Your task to perform on an android device: toggle pop-ups in chrome Image 0: 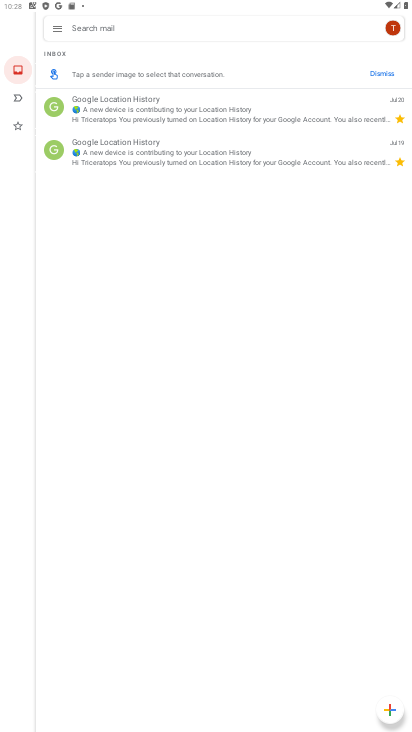
Step 0: press home button
Your task to perform on an android device: toggle pop-ups in chrome Image 1: 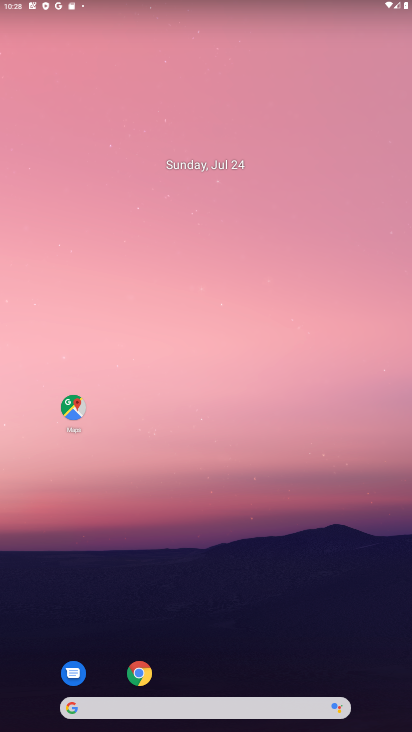
Step 1: click (142, 677)
Your task to perform on an android device: toggle pop-ups in chrome Image 2: 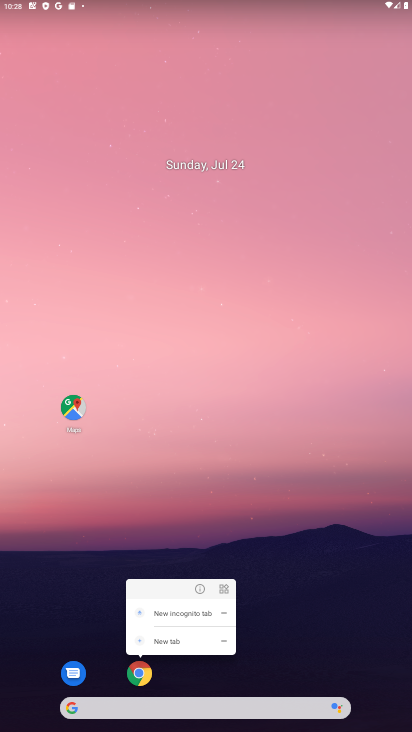
Step 2: click (145, 672)
Your task to perform on an android device: toggle pop-ups in chrome Image 3: 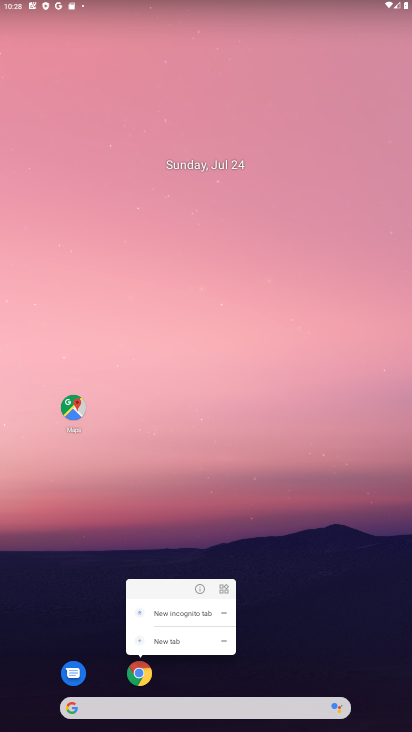
Step 3: click (152, 668)
Your task to perform on an android device: toggle pop-ups in chrome Image 4: 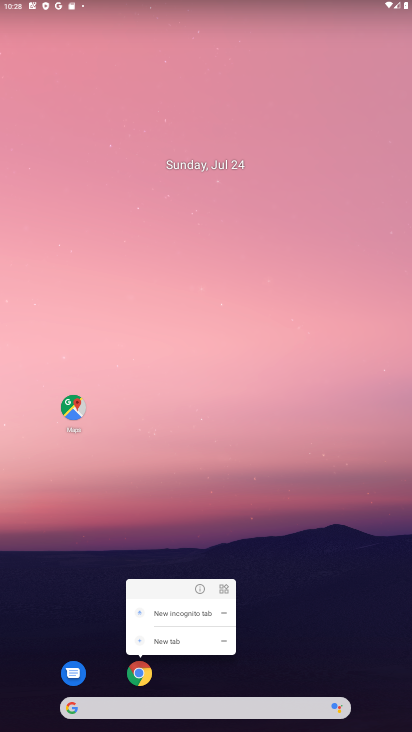
Step 4: click (149, 680)
Your task to perform on an android device: toggle pop-ups in chrome Image 5: 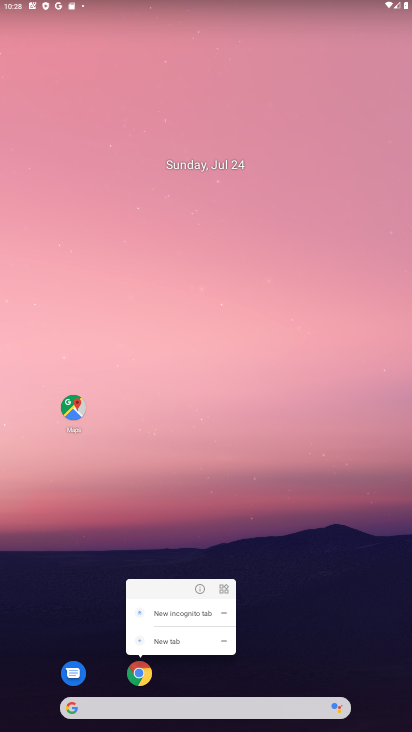
Step 5: click (143, 684)
Your task to perform on an android device: toggle pop-ups in chrome Image 6: 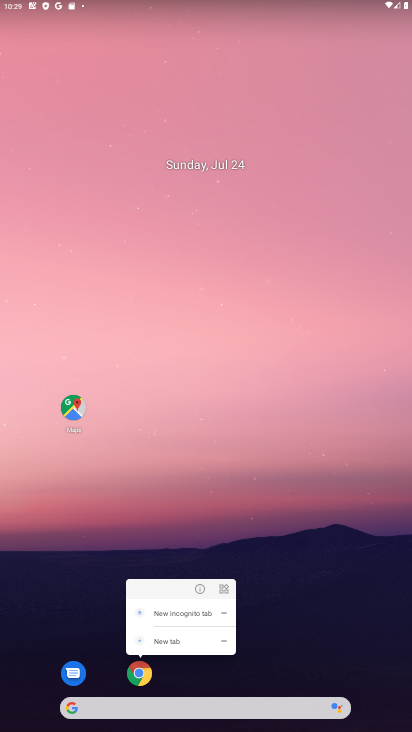
Step 6: click (142, 682)
Your task to perform on an android device: toggle pop-ups in chrome Image 7: 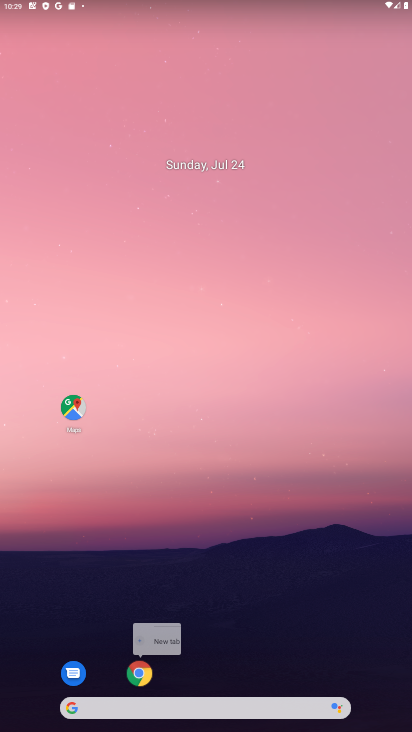
Step 7: click (142, 682)
Your task to perform on an android device: toggle pop-ups in chrome Image 8: 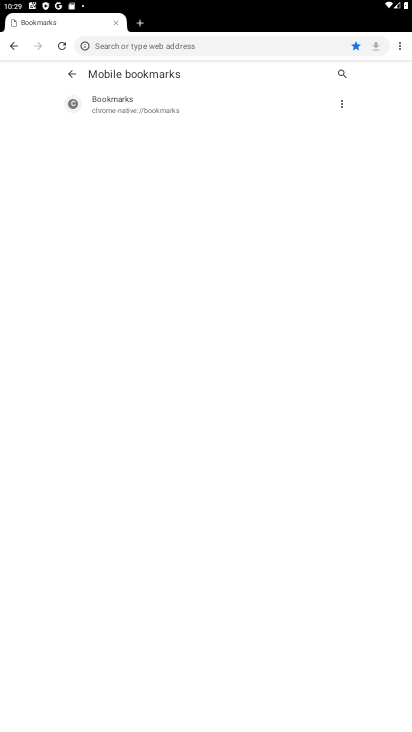
Step 8: click (400, 41)
Your task to perform on an android device: toggle pop-ups in chrome Image 9: 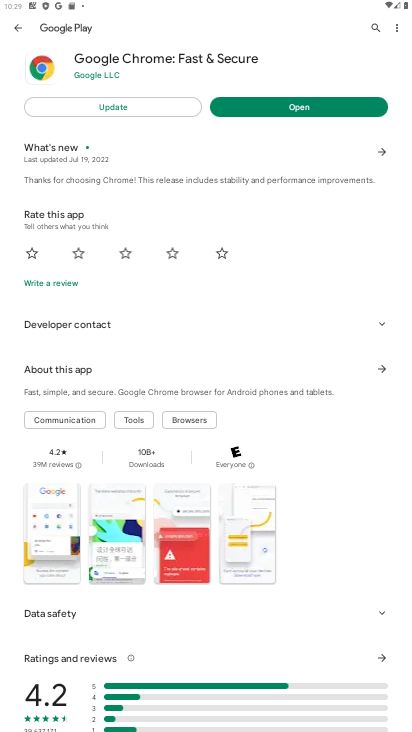
Step 9: click (315, 111)
Your task to perform on an android device: toggle pop-ups in chrome Image 10: 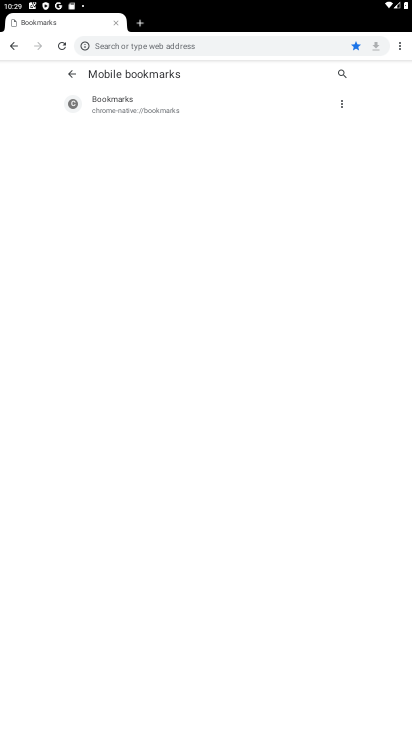
Step 10: click (402, 42)
Your task to perform on an android device: toggle pop-ups in chrome Image 11: 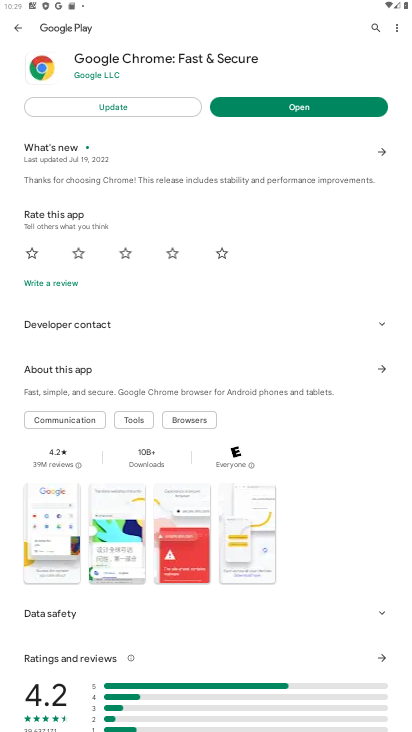
Step 11: task complete